Your task to perform on an android device: turn off notifications in google photos Image 0: 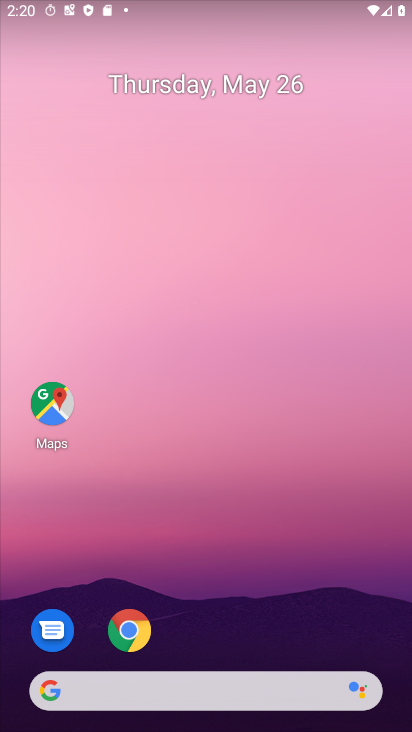
Step 0: drag from (291, 610) to (306, 27)
Your task to perform on an android device: turn off notifications in google photos Image 1: 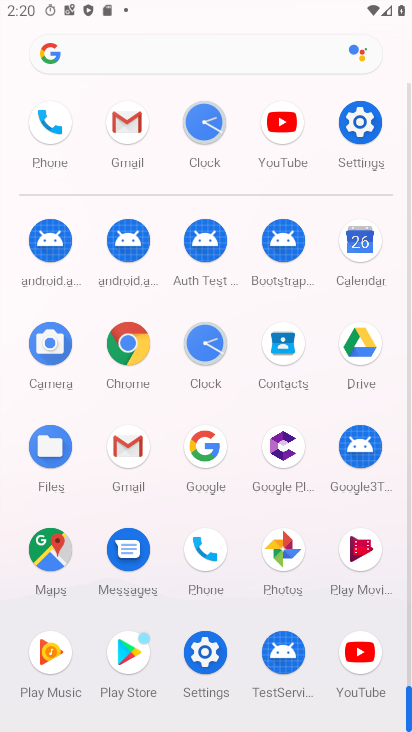
Step 1: click (275, 555)
Your task to perform on an android device: turn off notifications in google photos Image 2: 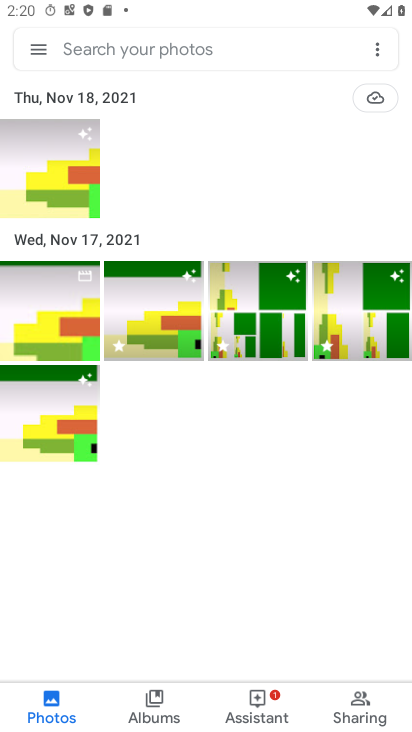
Step 2: click (39, 47)
Your task to perform on an android device: turn off notifications in google photos Image 3: 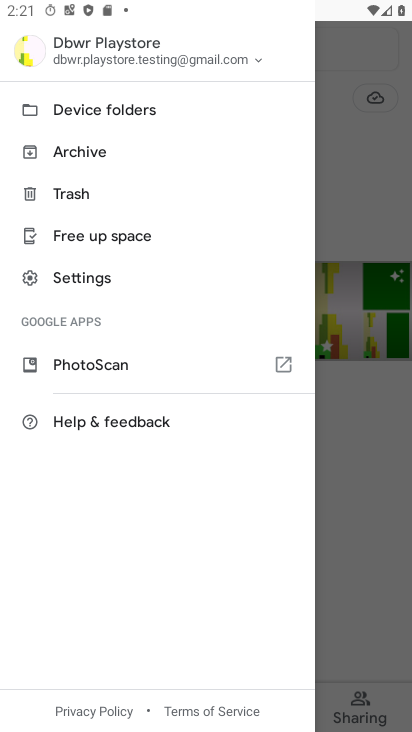
Step 3: click (131, 262)
Your task to perform on an android device: turn off notifications in google photos Image 4: 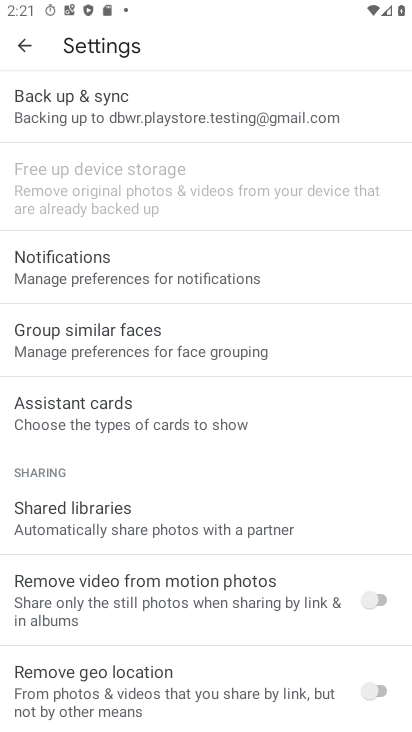
Step 4: click (141, 262)
Your task to perform on an android device: turn off notifications in google photos Image 5: 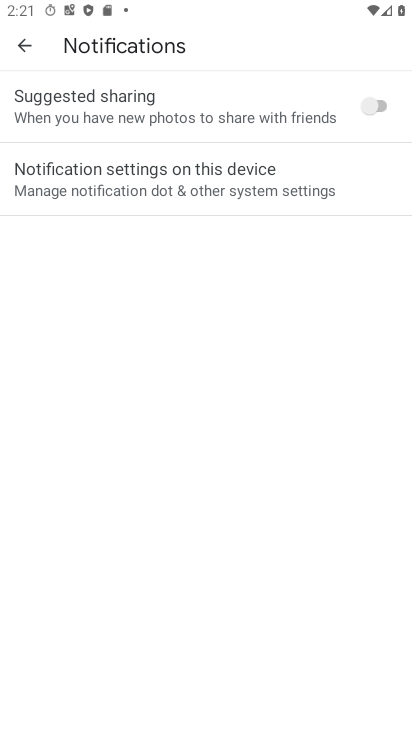
Step 5: task complete